Your task to perform on an android device: allow notifications from all sites in the chrome app Image 0: 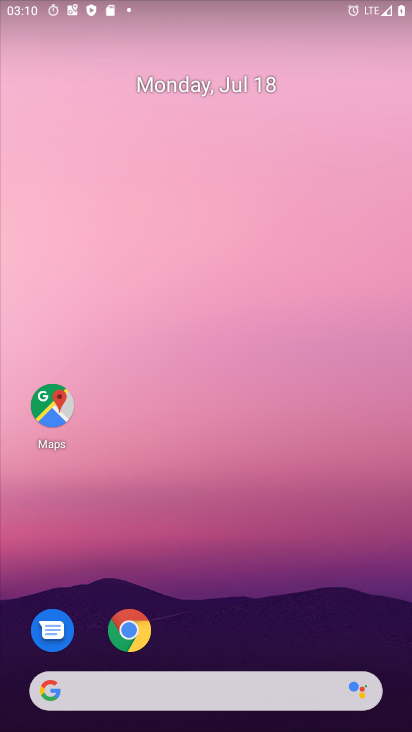
Step 0: click (112, 625)
Your task to perform on an android device: allow notifications from all sites in the chrome app Image 1: 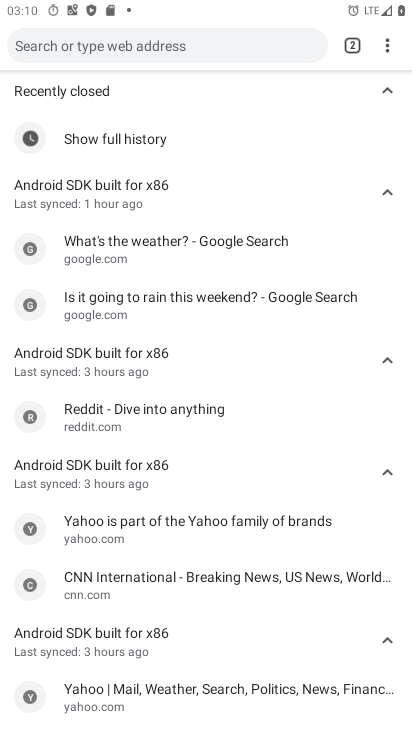
Step 1: click (399, 51)
Your task to perform on an android device: allow notifications from all sites in the chrome app Image 2: 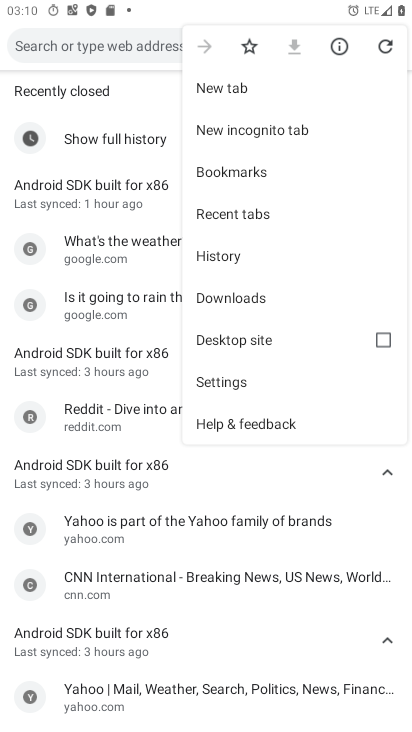
Step 2: click (250, 395)
Your task to perform on an android device: allow notifications from all sites in the chrome app Image 3: 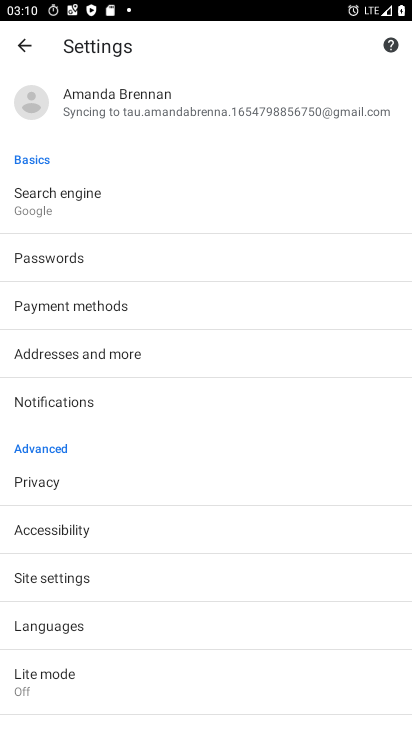
Step 3: click (96, 402)
Your task to perform on an android device: allow notifications from all sites in the chrome app Image 4: 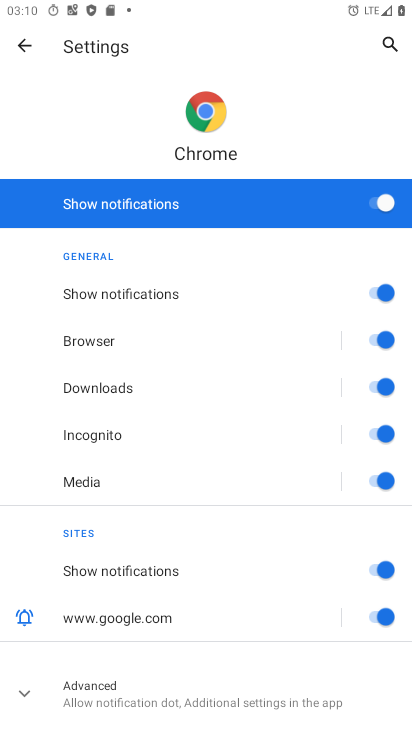
Step 4: task complete